Your task to perform on an android device: toggle wifi Image 0: 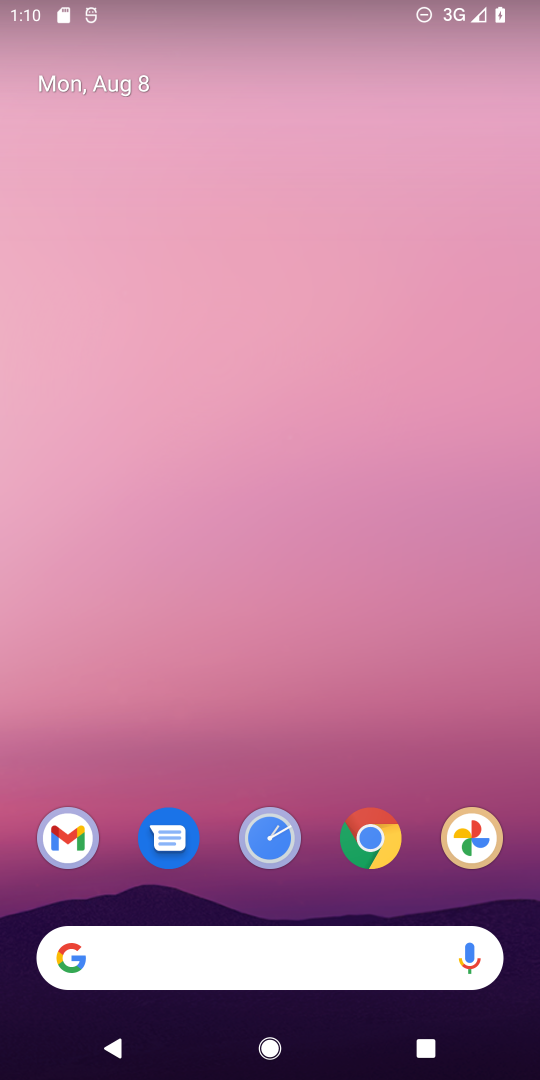
Step 0: press home button
Your task to perform on an android device: toggle wifi Image 1: 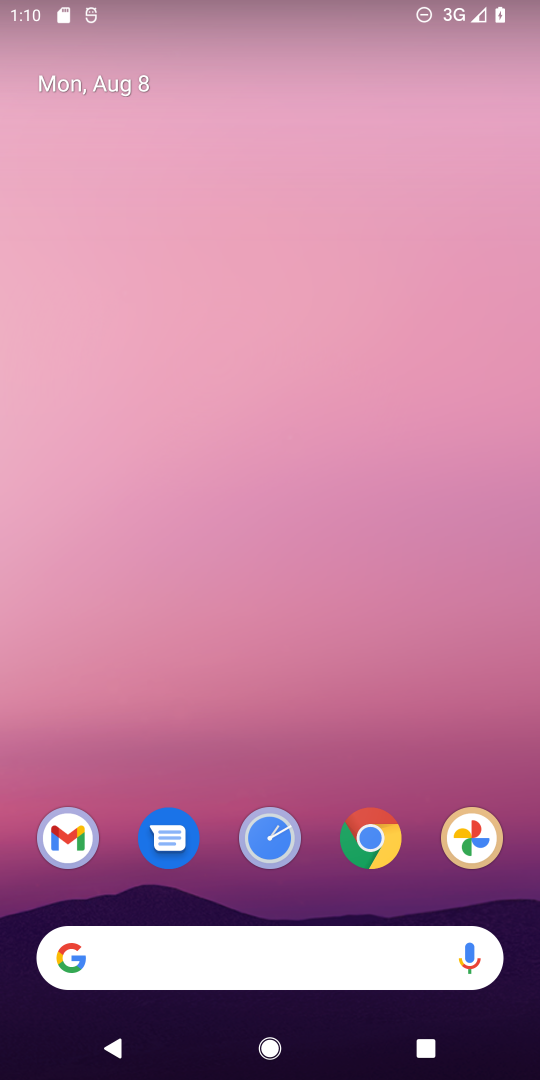
Step 1: drag from (320, 898) to (322, 188)
Your task to perform on an android device: toggle wifi Image 2: 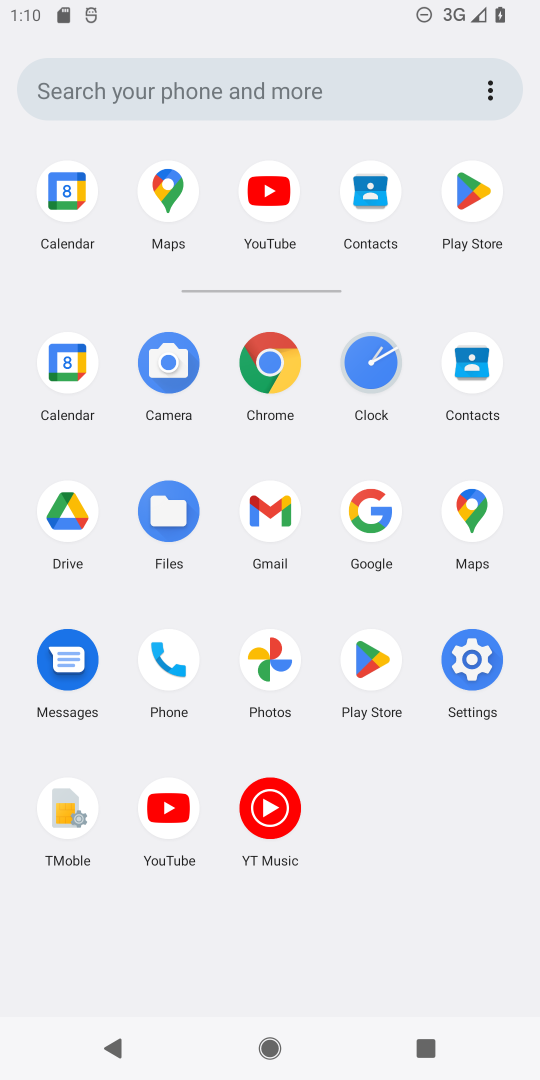
Step 2: click (467, 667)
Your task to perform on an android device: toggle wifi Image 3: 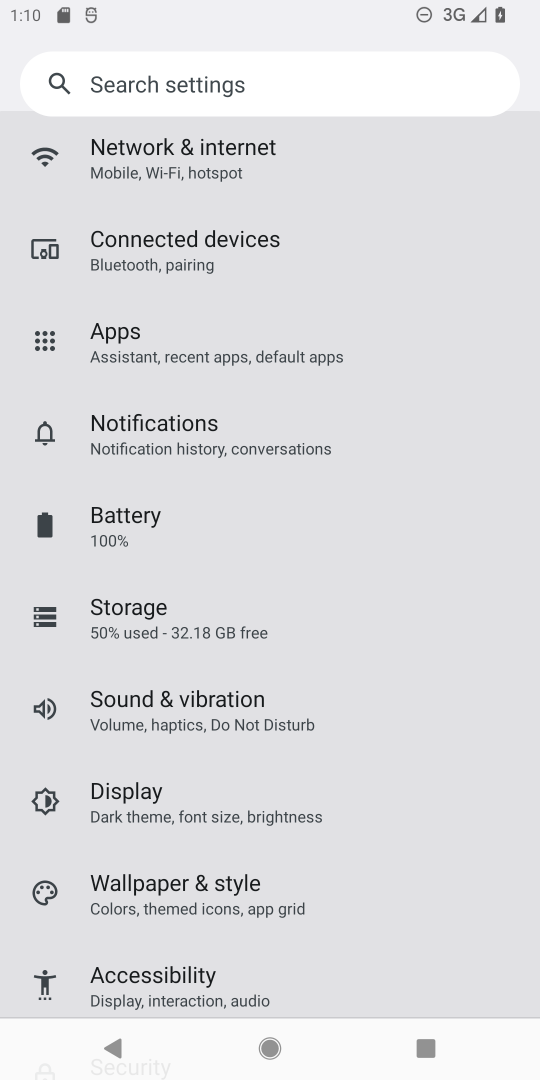
Step 3: click (102, 162)
Your task to perform on an android device: toggle wifi Image 4: 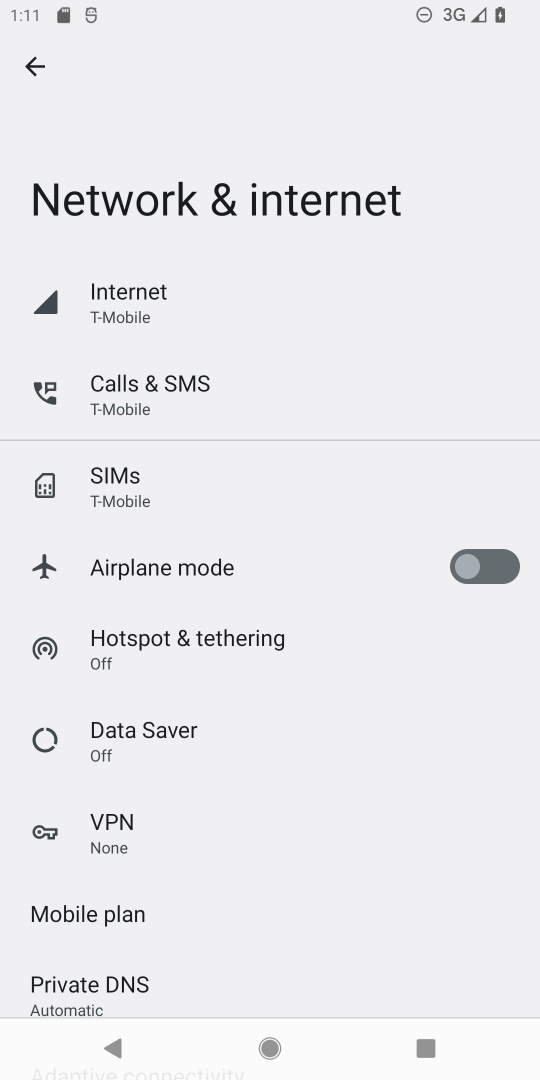
Step 4: click (123, 313)
Your task to perform on an android device: toggle wifi Image 5: 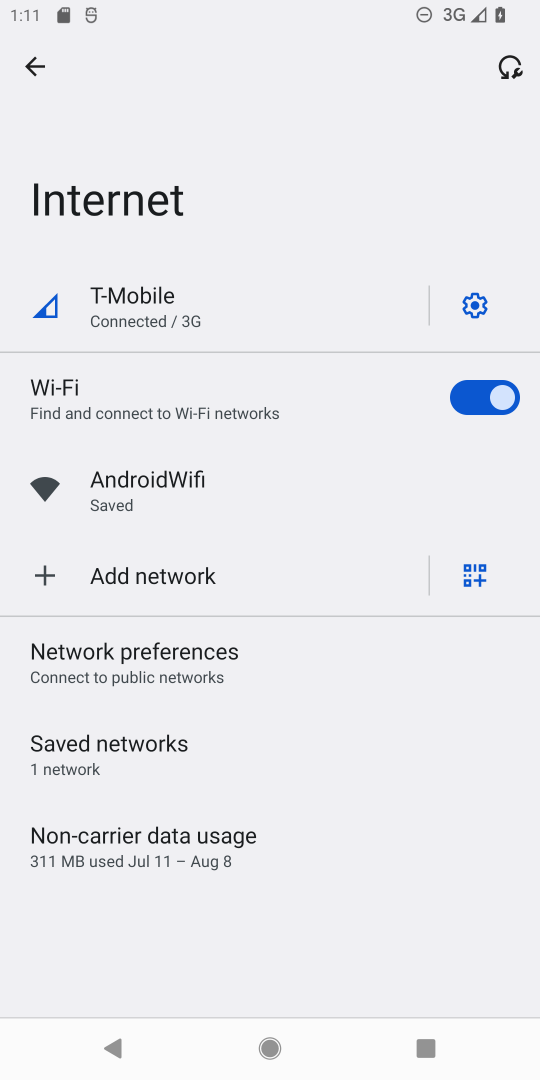
Step 5: click (504, 400)
Your task to perform on an android device: toggle wifi Image 6: 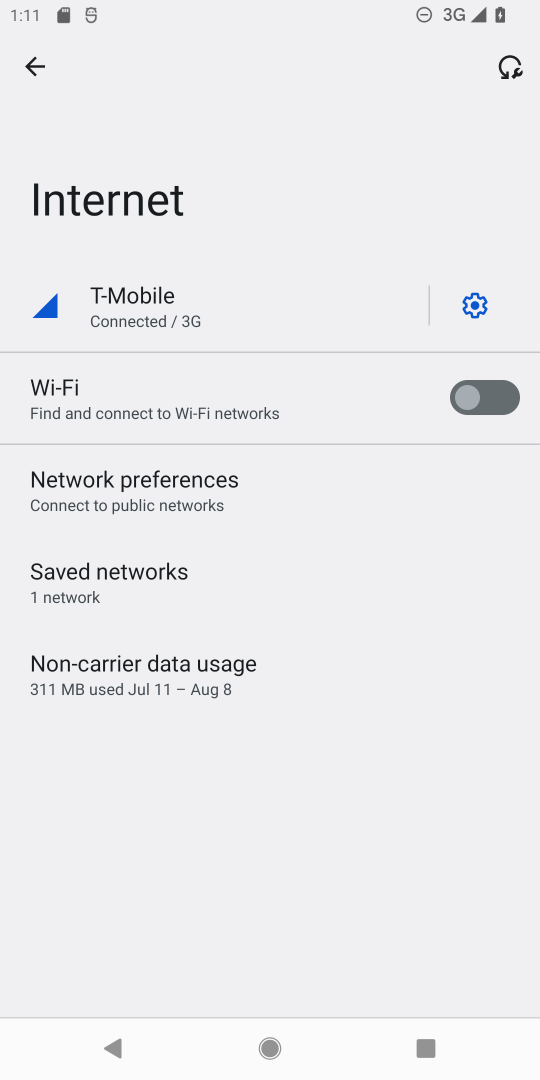
Step 6: task complete